Your task to perform on an android device: set the timer Image 0: 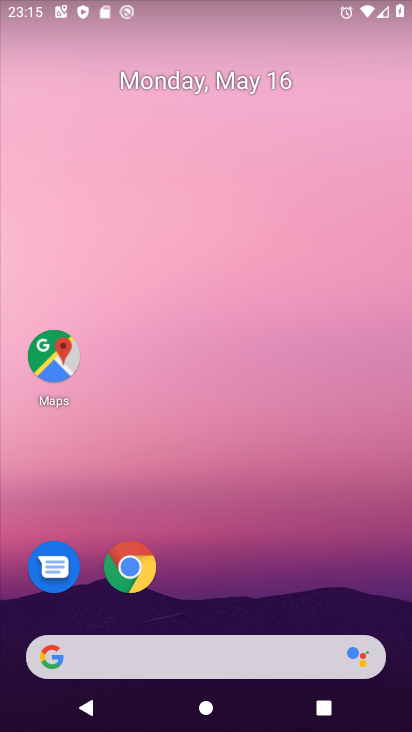
Step 0: drag from (275, 504) to (182, 105)
Your task to perform on an android device: set the timer Image 1: 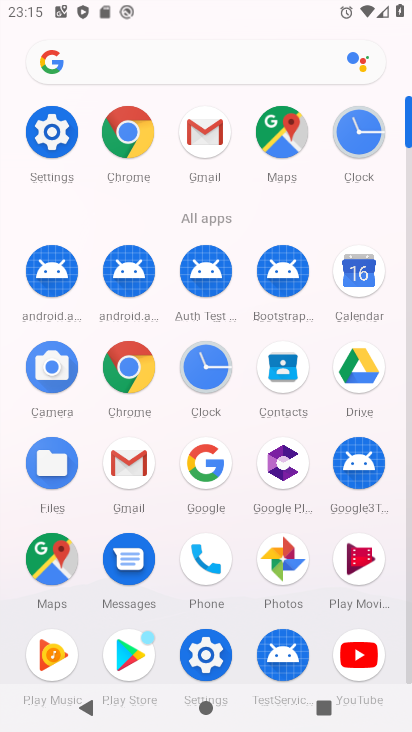
Step 1: click (353, 137)
Your task to perform on an android device: set the timer Image 2: 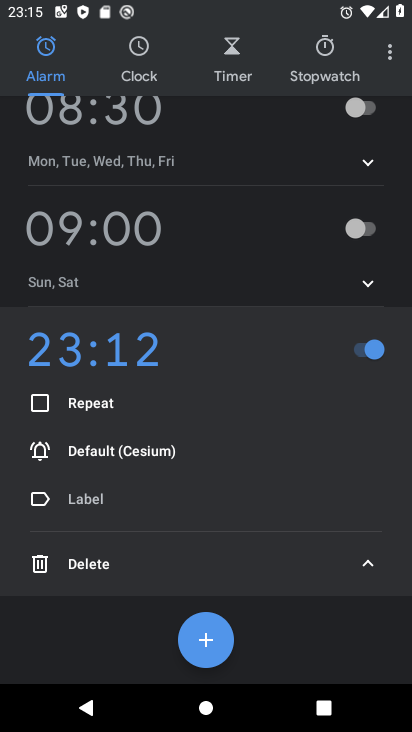
Step 2: click (385, 48)
Your task to perform on an android device: set the timer Image 3: 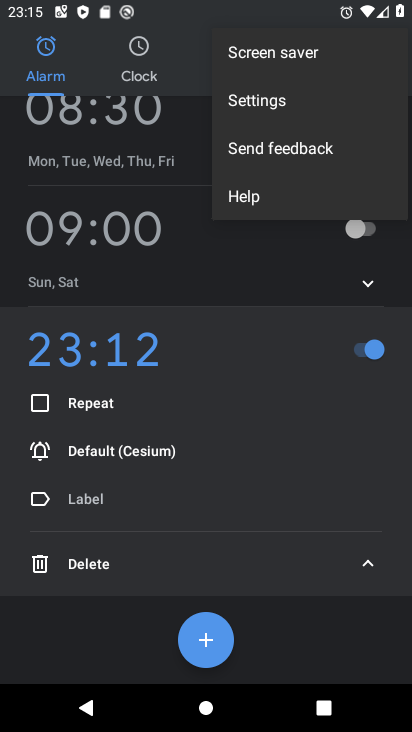
Step 3: click (271, 91)
Your task to perform on an android device: set the timer Image 4: 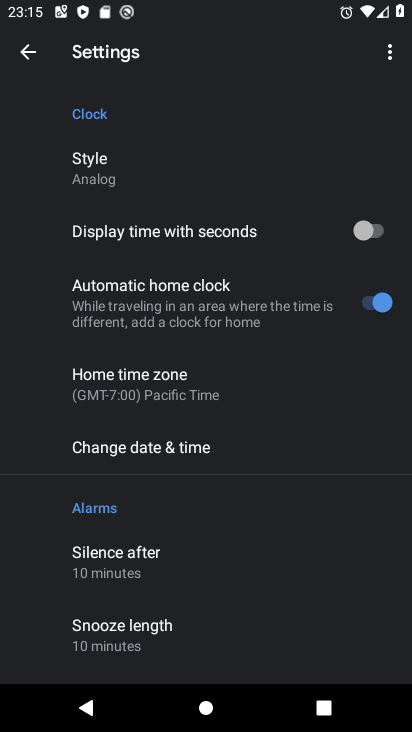
Step 4: drag from (228, 583) to (226, 417)
Your task to perform on an android device: set the timer Image 5: 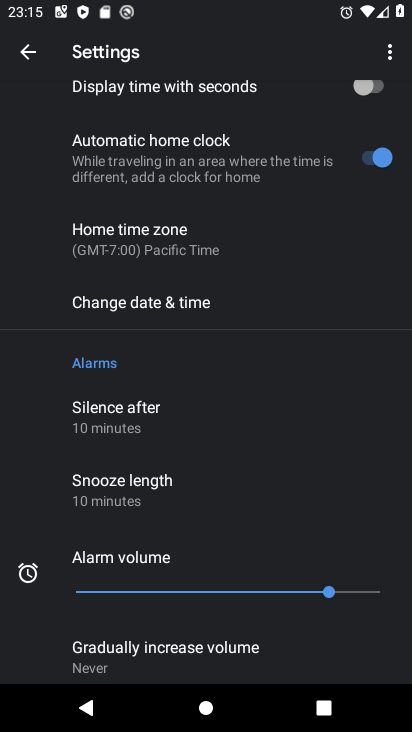
Step 5: drag from (223, 517) to (214, 275)
Your task to perform on an android device: set the timer Image 6: 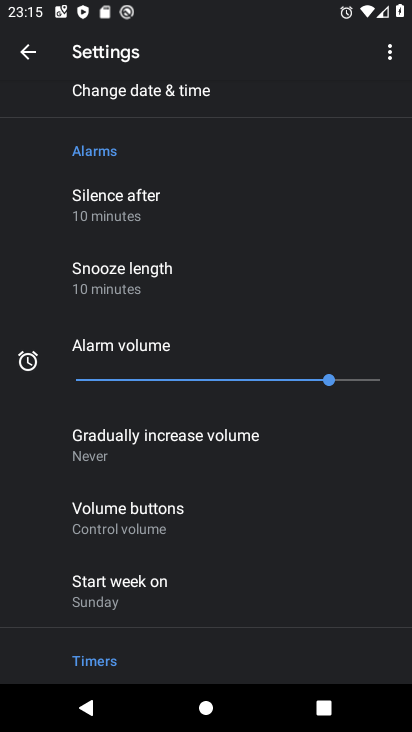
Step 6: click (25, 54)
Your task to perform on an android device: set the timer Image 7: 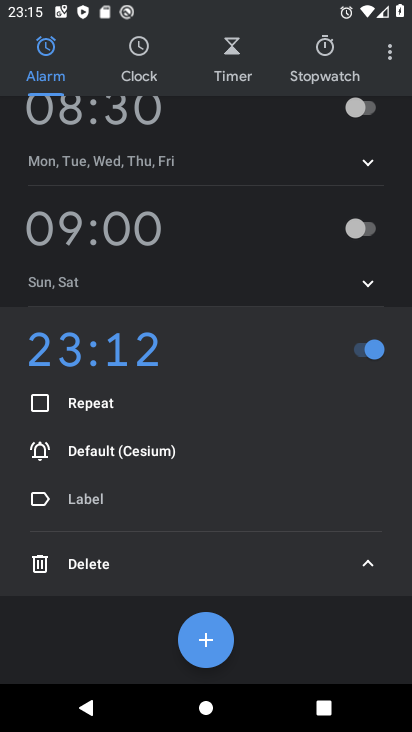
Step 7: click (230, 49)
Your task to perform on an android device: set the timer Image 8: 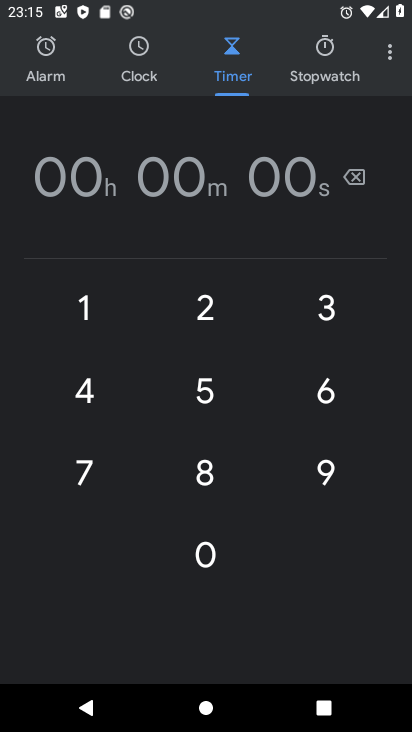
Step 8: click (84, 307)
Your task to perform on an android device: set the timer Image 9: 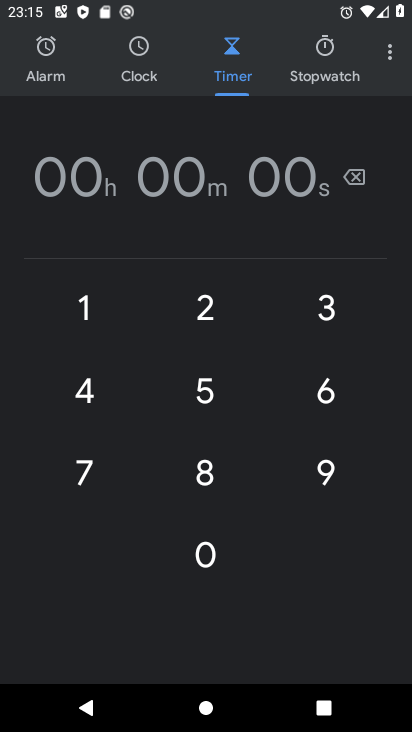
Step 9: click (84, 307)
Your task to perform on an android device: set the timer Image 10: 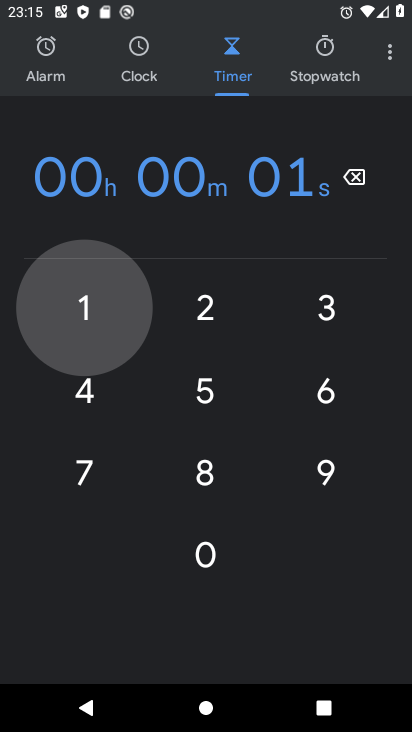
Step 10: click (84, 307)
Your task to perform on an android device: set the timer Image 11: 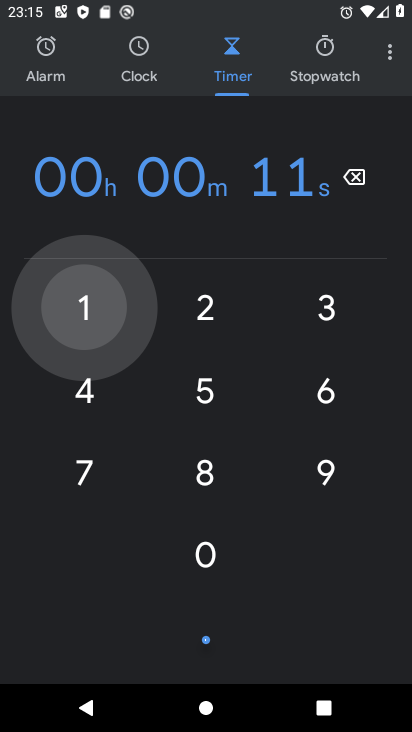
Step 11: click (84, 307)
Your task to perform on an android device: set the timer Image 12: 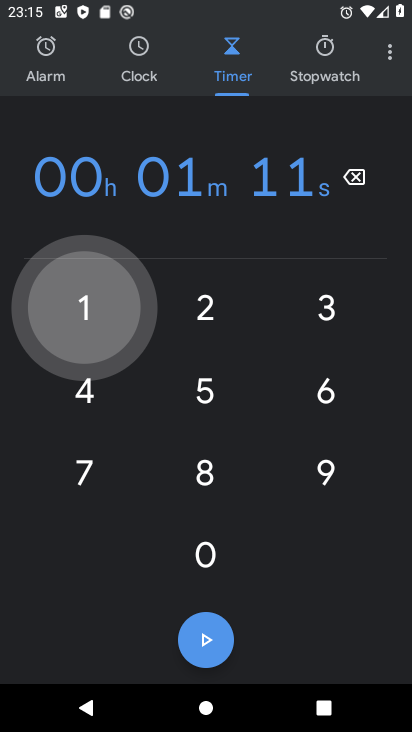
Step 12: click (84, 307)
Your task to perform on an android device: set the timer Image 13: 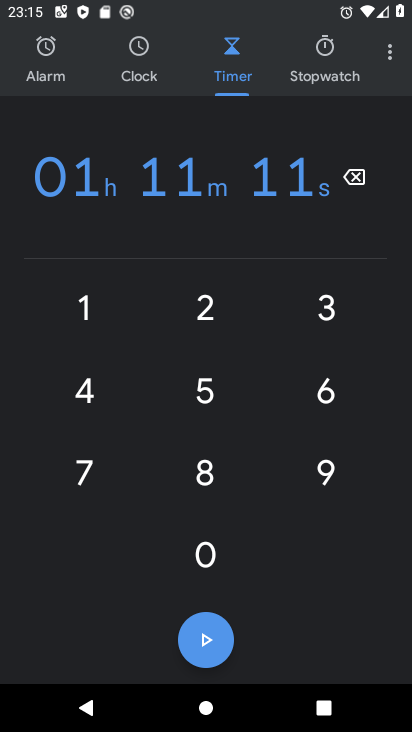
Step 13: click (84, 307)
Your task to perform on an android device: set the timer Image 14: 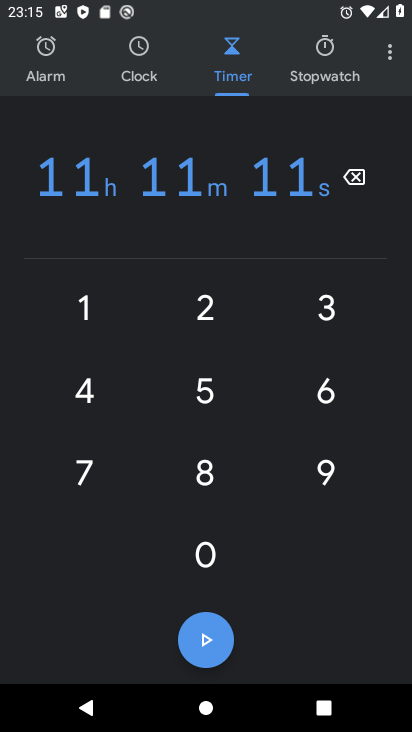
Step 14: task complete